Your task to perform on an android device: Open calendar and show me the first week of next month Image 0: 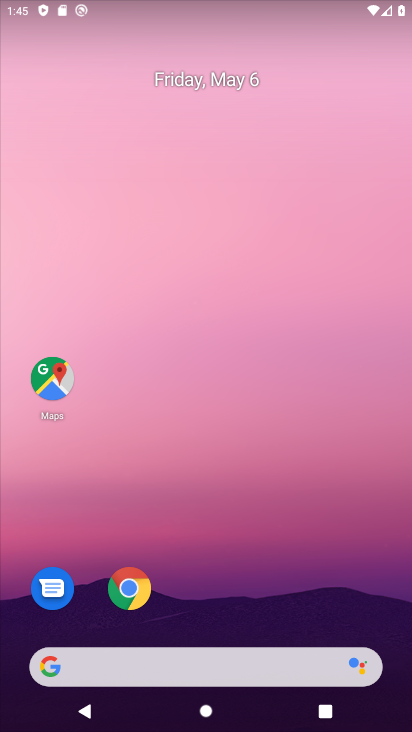
Step 0: click (186, 71)
Your task to perform on an android device: Open calendar and show me the first week of next month Image 1: 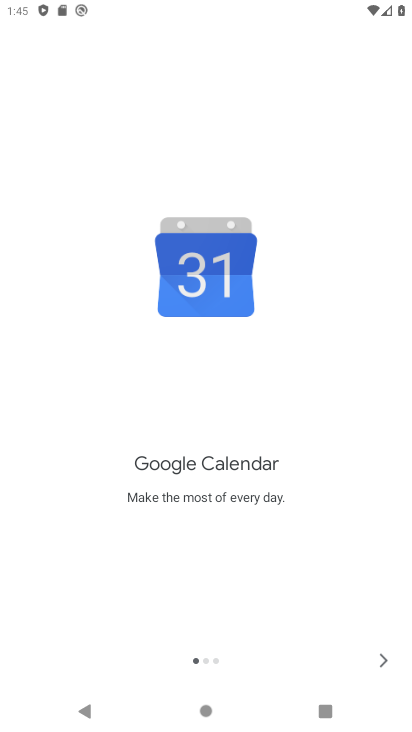
Step 1: click (378, 653)
Your task to perform on an android device: Open calendar and show me the first week of next month Image 2: 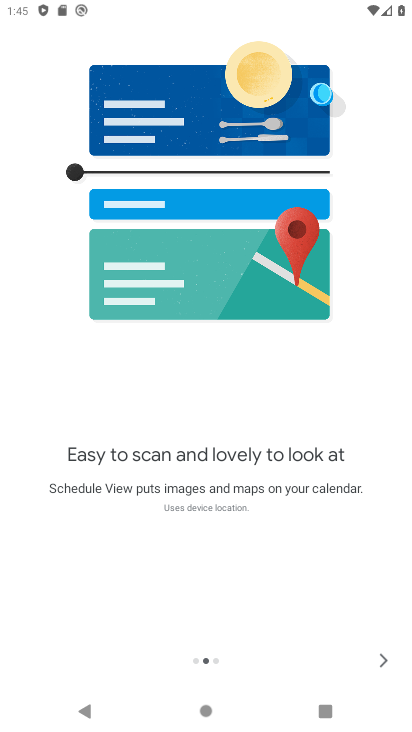
Step 2: click (378, 653)
Your task to perform on an android device: Open calendar and show me the first week of next month Image 3: 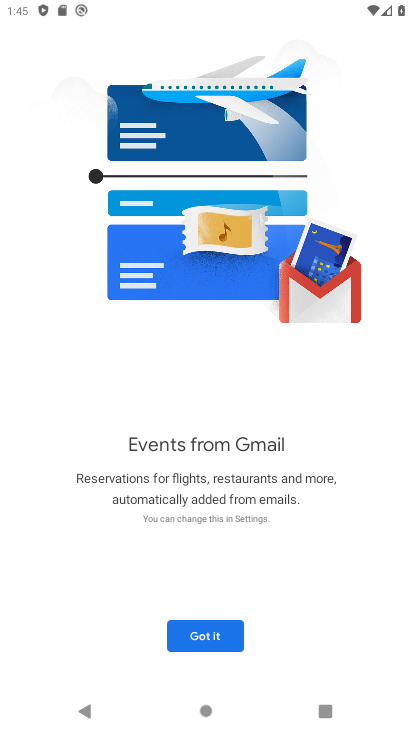
Step 3: click (178, 626)
Your task to perform on an android device: Open calendar and show me the first week of next month Image 4: 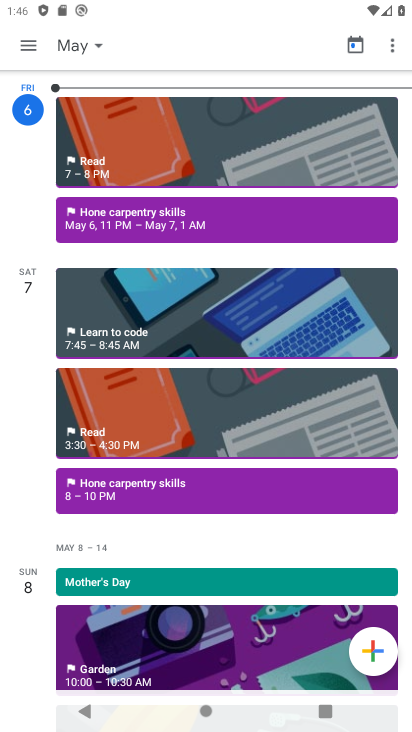
Step 4: click (61, 57)
Your task to perform on an android device: Open calendar and show me the first week of next month Image 5: 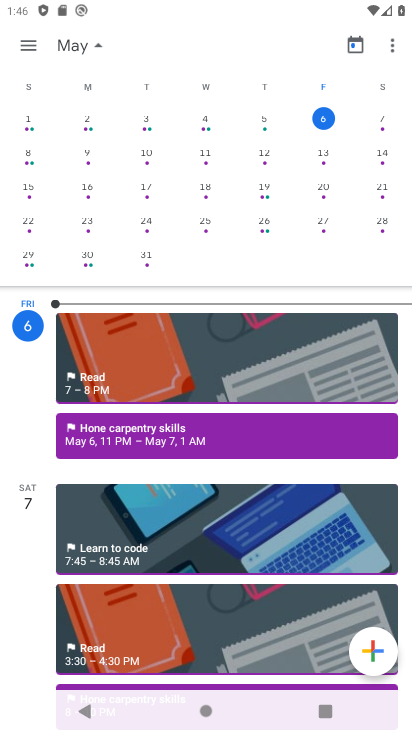
Step 5: task complete